Your task to perform on an android device: check storage Image 0: 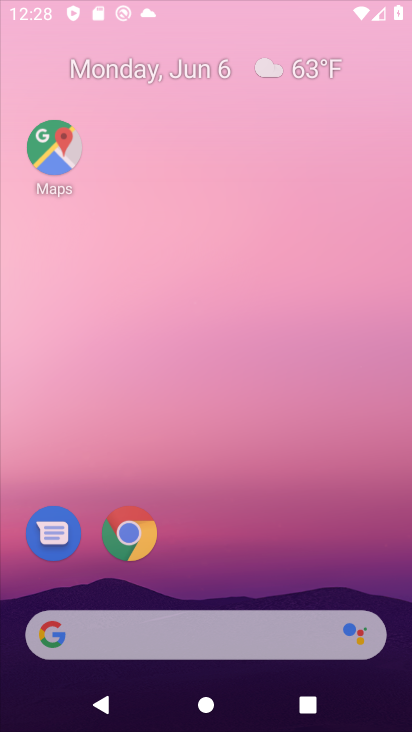
Step 0: press home button
Your task to perform on an android device: check storage Image 1: 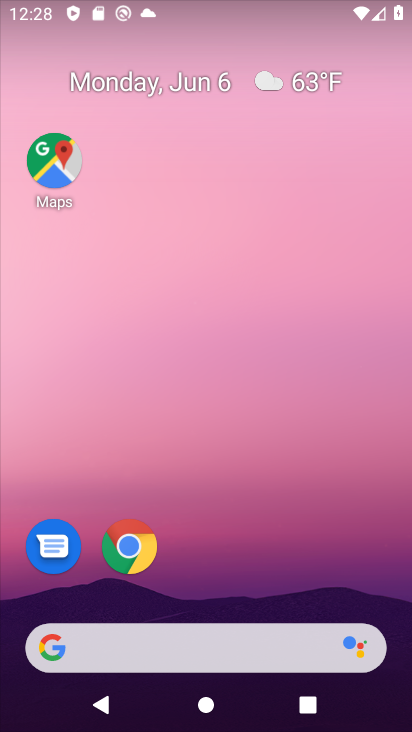
Step 1: drag from (222, 611) to (194, 9)
Your task to perform on an android device: check storage Image 2: 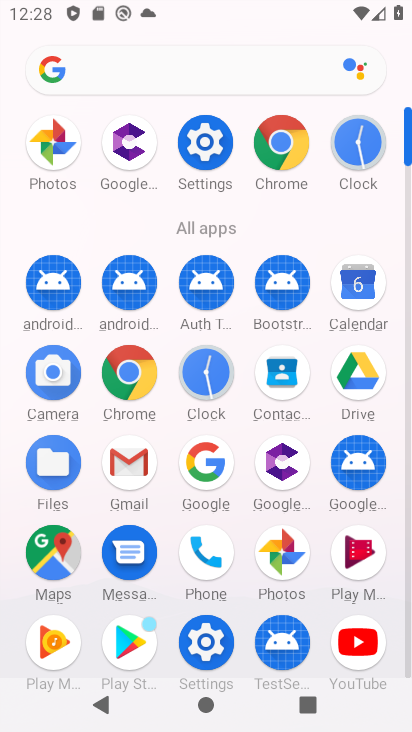
Step 2: click (215, 163)
Your task to perform on an android device: check storage Image 3: 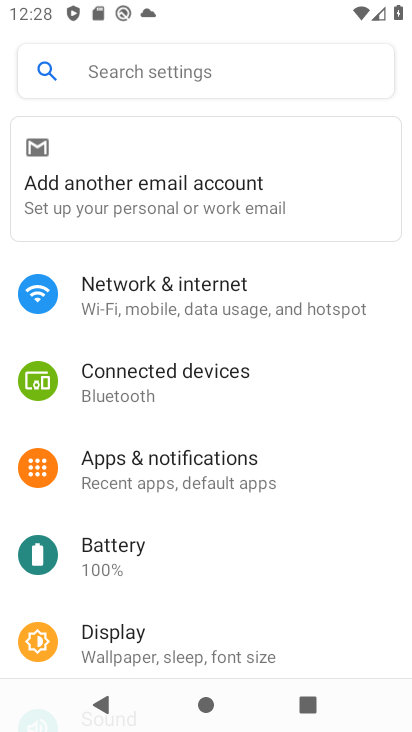
Step 3: drag from (187, 605) to (156, 144)
Your task to perform on an android device: check storage Image 4: 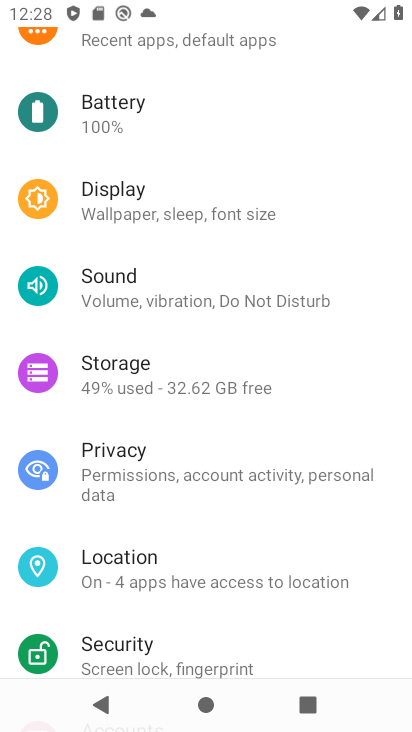
Step 4: click (123, 378)
Your task to perform on an android device: check storage Image 5: 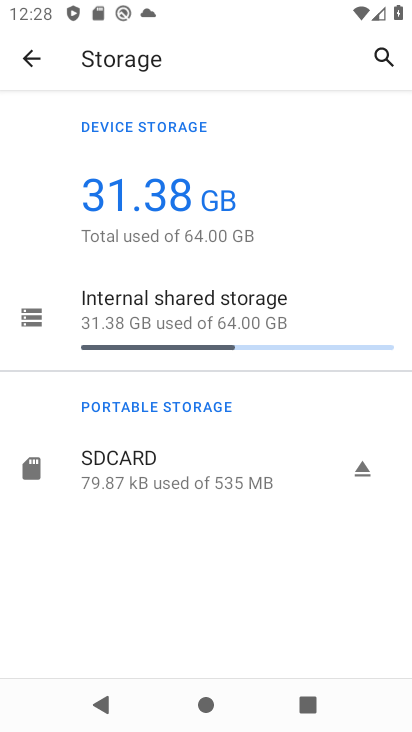
Step 5: click (135, 302)
Your task to perform on an android device: check storage Image 6: 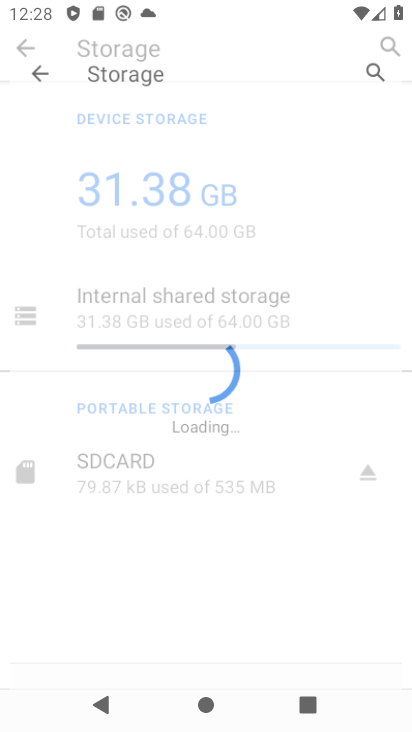
Step 6: task complete